Your task to perform on an android device: set an alarm Image 0: 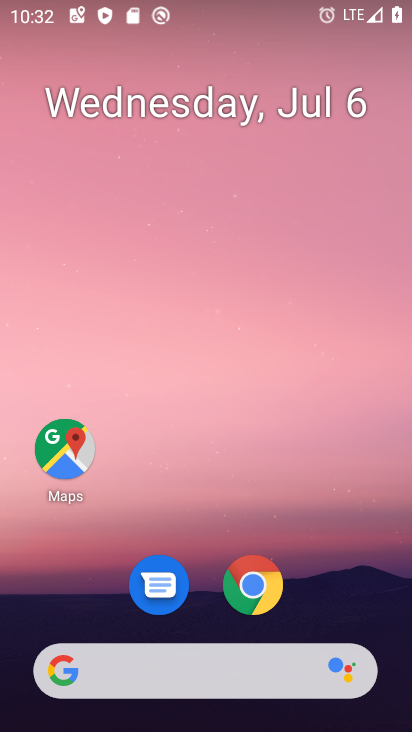
Step 0: drag from (198, 484) to (277, 4)
Your task to perform on an android device: set an alarm Image 1: 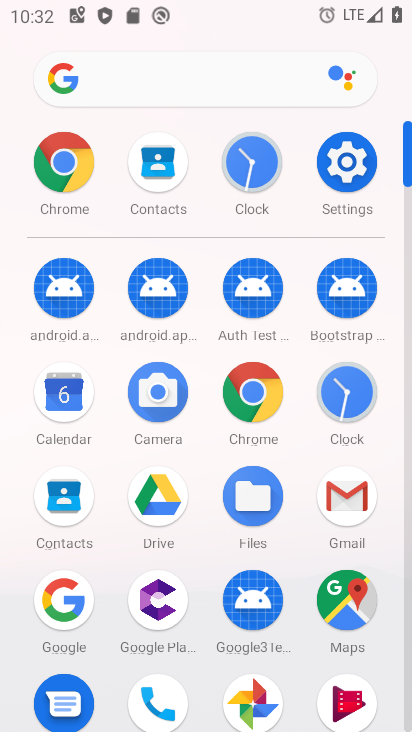
Step 1: click (258, 168)
Your task to perform on an android device: set an alarm Image 2: 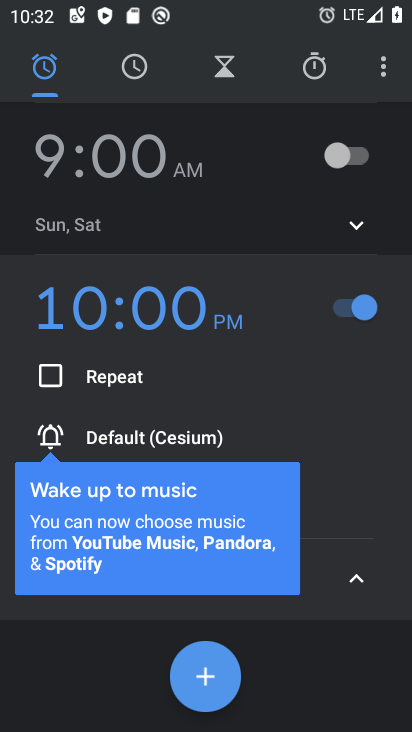
Step 2: click (209, 675)
Your task to perform on an android device: set an alarm Image 3: 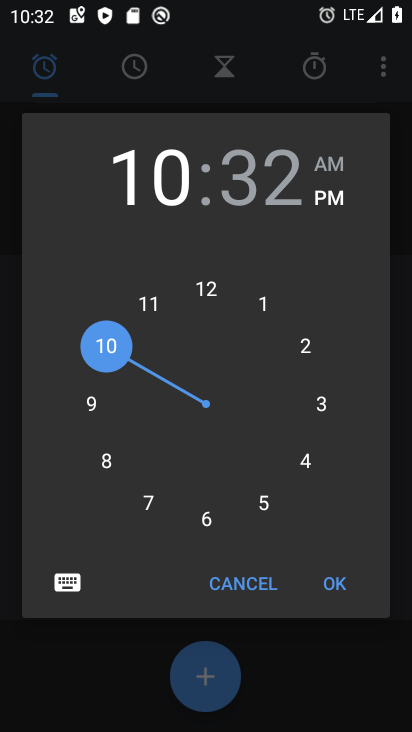
Step 3: click (148, 305)
Your task to perform on an android device: set an alarm Image 4: 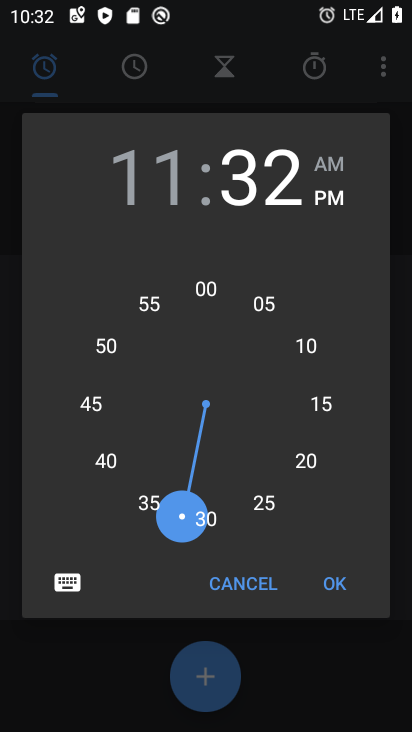
Step 4: click (274, 185)
Your task to perform on an android device: set an alarm Image 5: 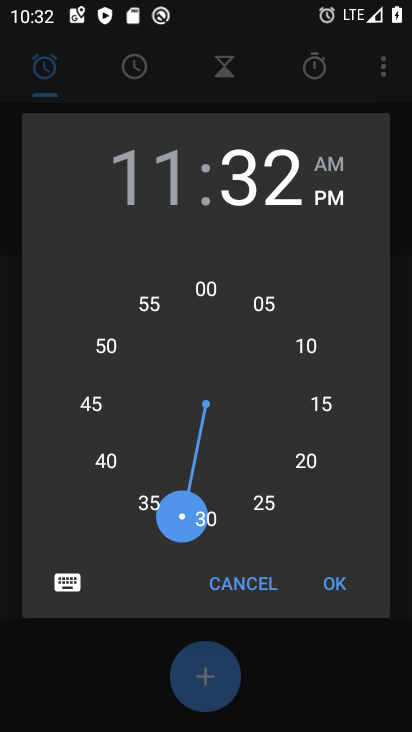
Step 5: click (203, 278)
Your task to perform on an android device: set an alarm Image 6: 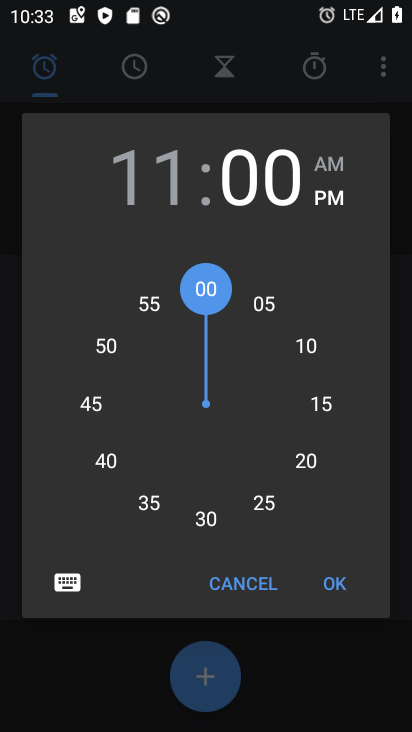
Step 6: click (341, 587)
Your task to perform on an android device: set an alarm Image 7: 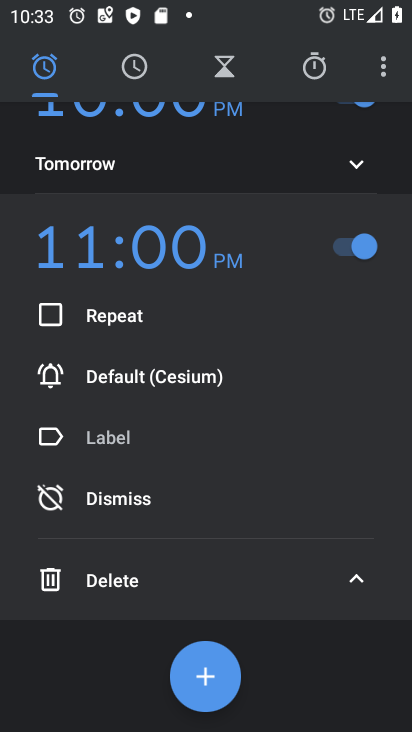
Step 7: task complete